Your task to perform on an android device: check battery use Image 0: 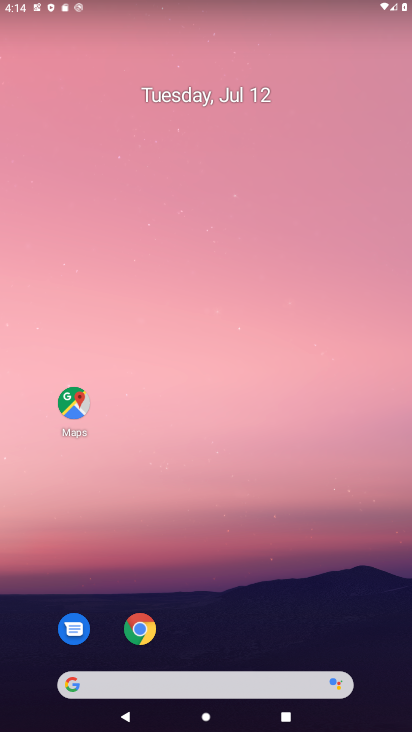
Step 0: press home button
Your task to perform on an android device: check battery use Image 1: 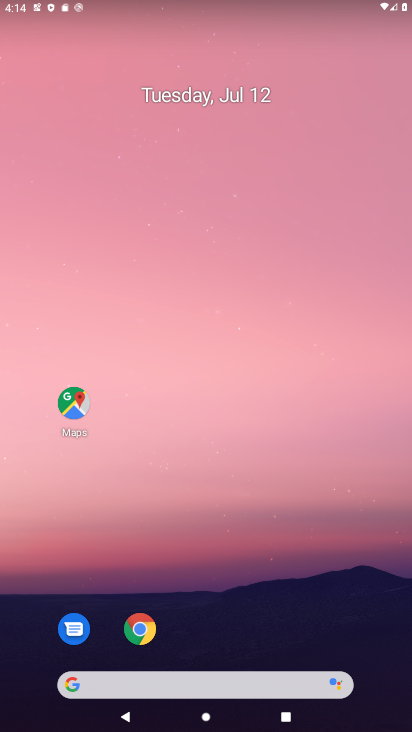
Step 1: press home button
Your task to perform on an android device: check battery use Image 2: 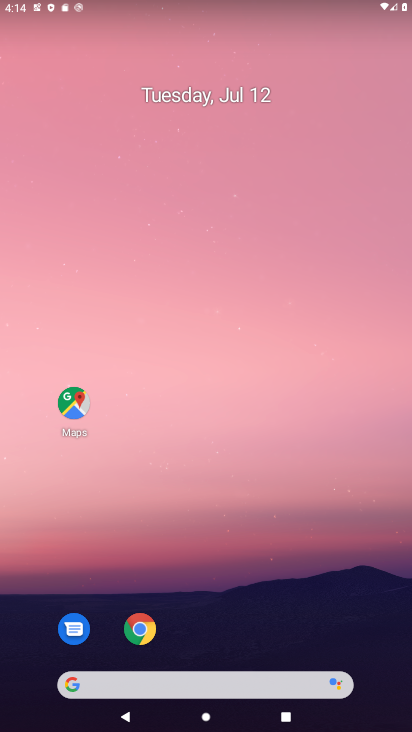
Step 2: drag from (204, 630) to (144, 84)
Your task to perform on an android device: check battery use Image 3: 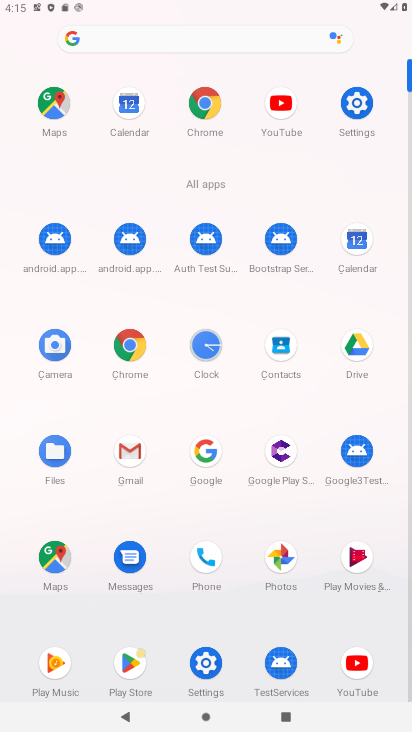
Step 3: click (352, 101)
Your task to perform on an android device: check battery use Image 4: 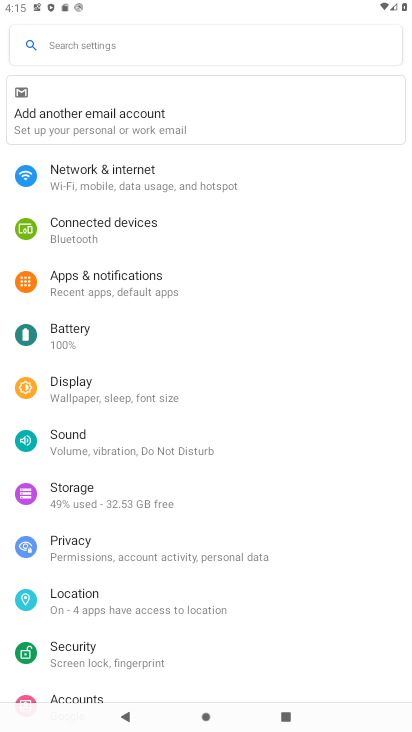
Step 4: click (62, 325)
Your task to perform on an android device: check battery use Image 5: 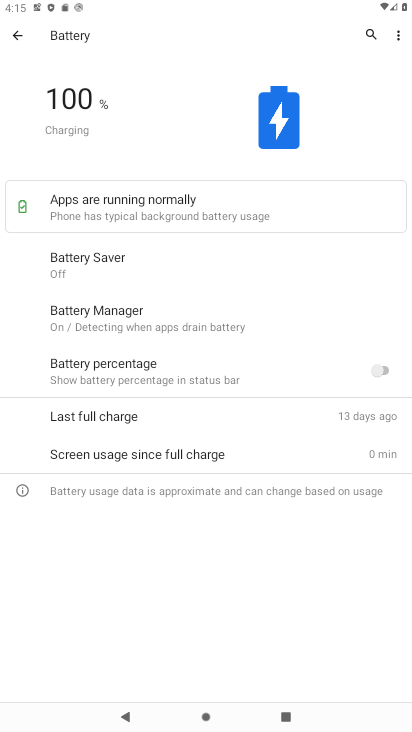
Step 5: click (398, 35)
Your task to perform on an android device: check battery use Image 6: 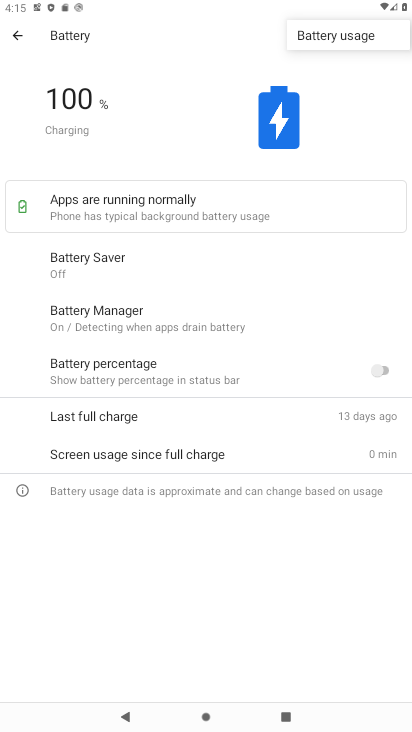
Step 6: click (333, 34)
Your task to perform on an android device: check battery use Image 7: 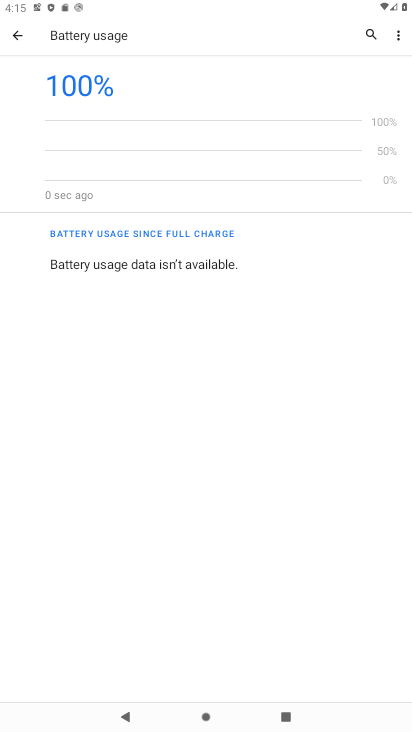
Step 7: task complete